Your task to perform on an android device: change the clock display to digital Image 0: 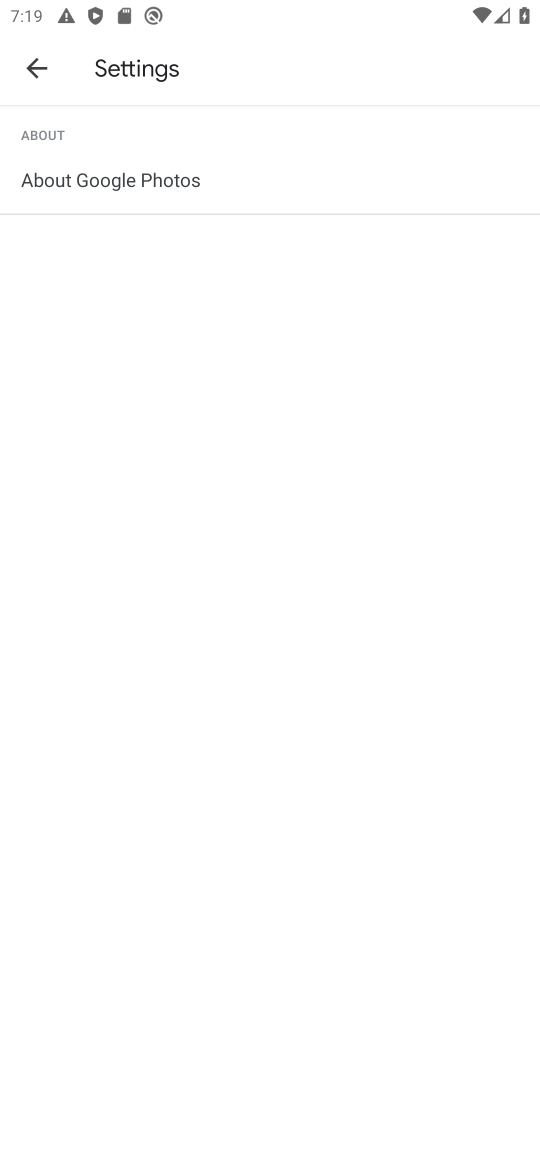
Step 0: press home button
Your task to perform on an android device: change the clock display to digital Image 1: 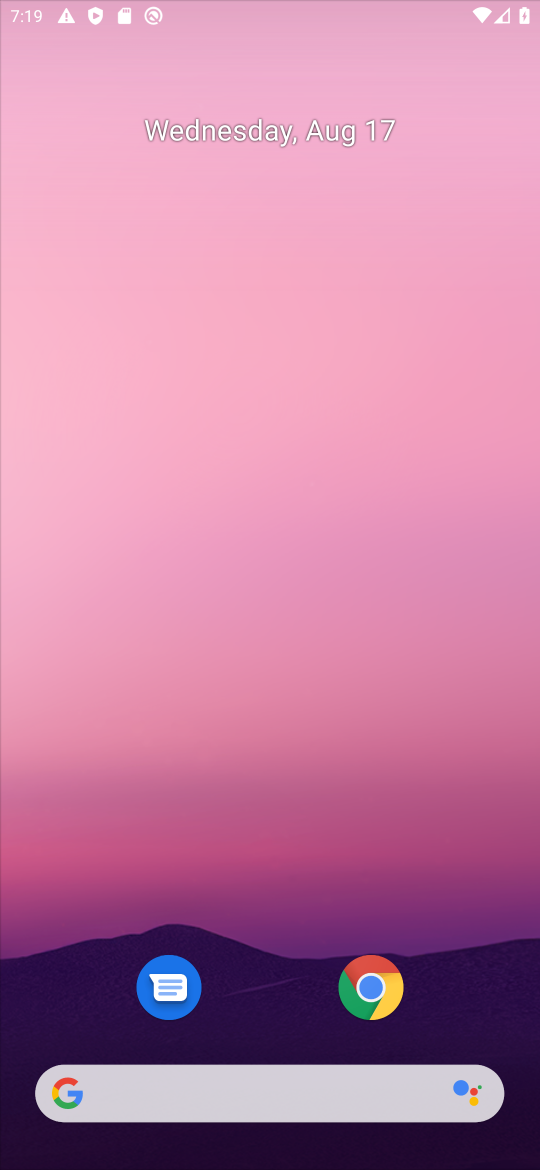
Step 1: drag from (469, 1004) to (232, 9)
Your task to perform on an android device: change the clock display to digital Image 2: 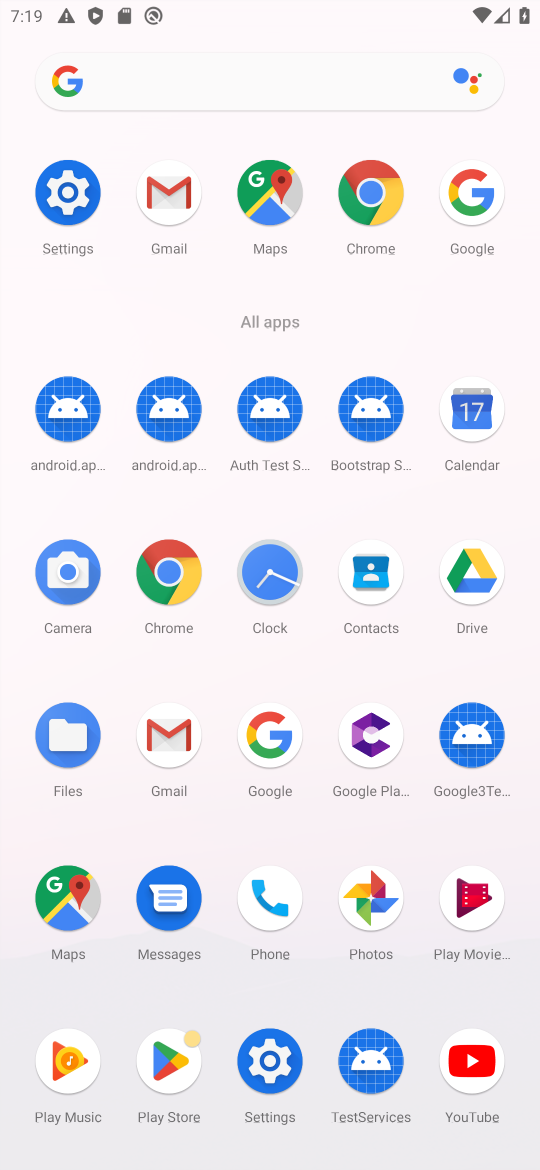
Step 2: click (250, 589)
Your task to perform on an android device: change the clock display to digital Image 3: 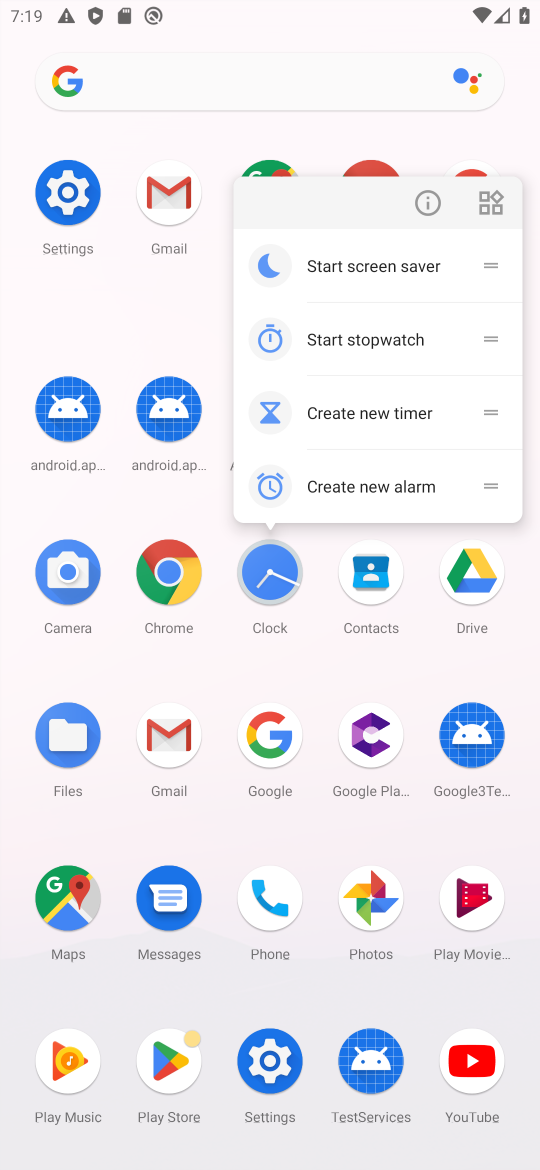
Step 3: click (248, 591)
Your task to perform on an android device: change the clock display to digital Image 4: 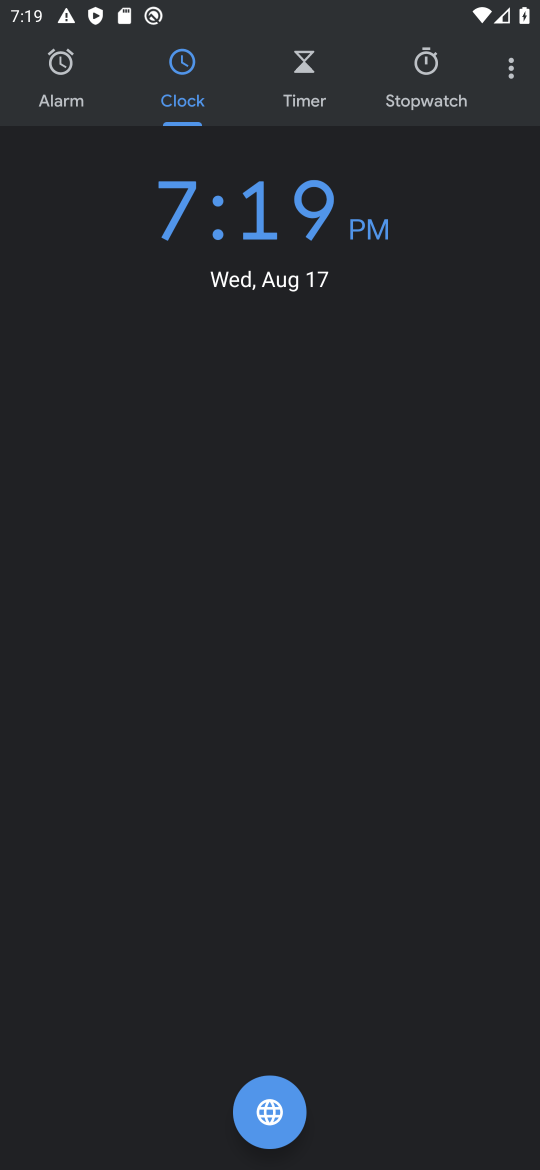
Step 4: click (475, 122)
Your task to perform on an android device: change the clock display to digital Image 5: 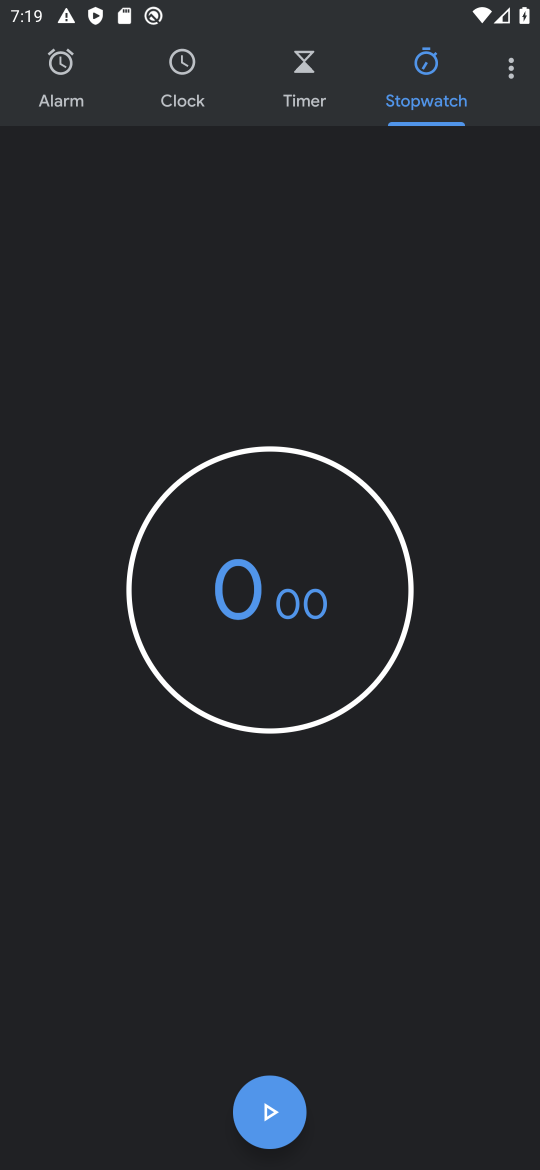
Step 5: click (501, 64)
Your task to perform on an android device: change the clock display to digital Image 6: 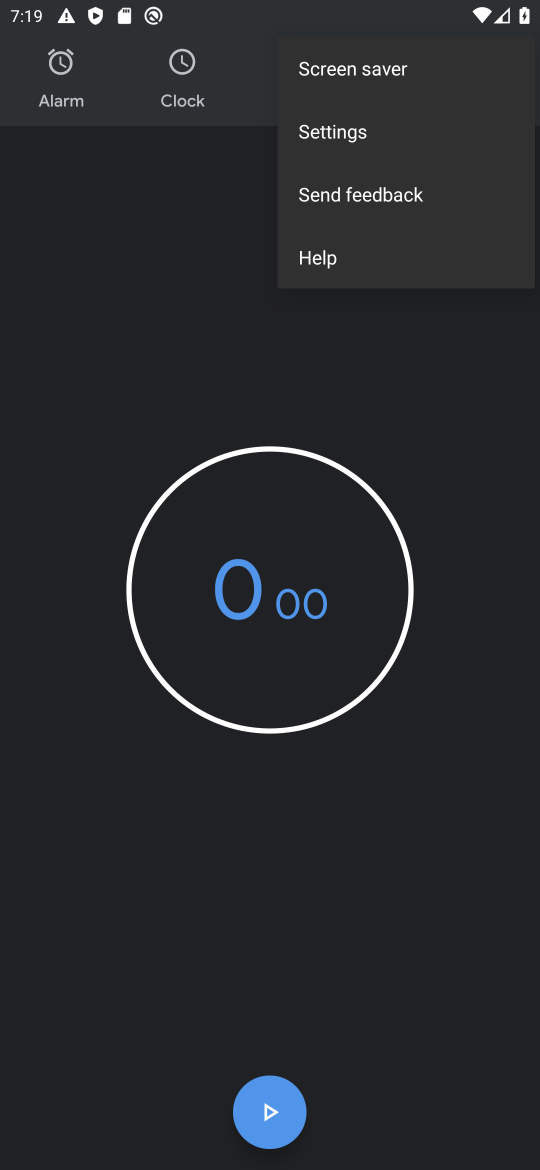
Step 6: click (326, 139)
Your task to perform on an android device: change the clock display to digital Image 7: 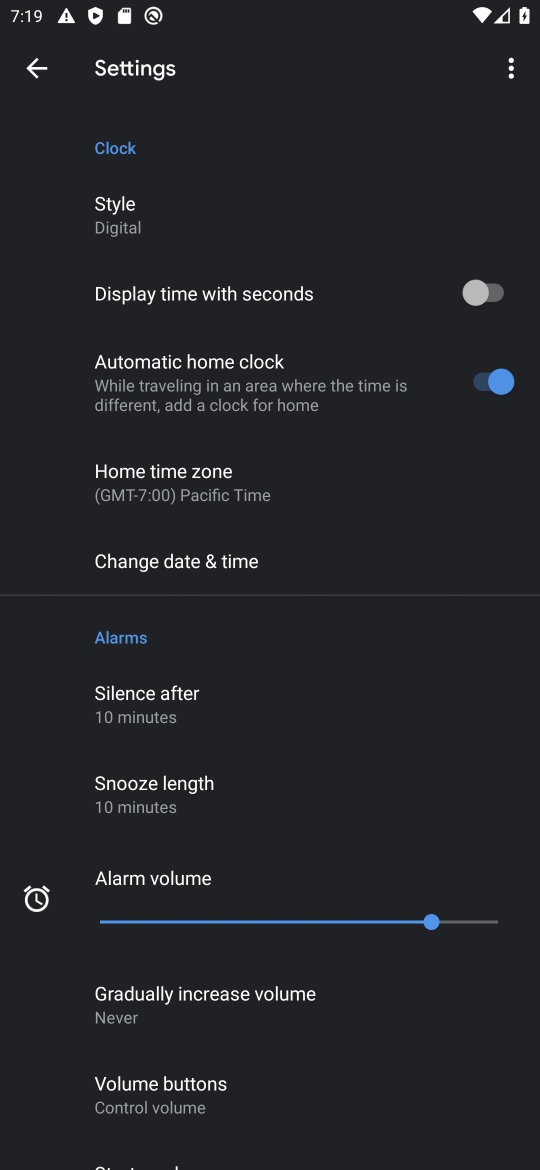
Step 7: click (135, 211)
Your task to perform on an android device: change the clock display to digital Image 8: 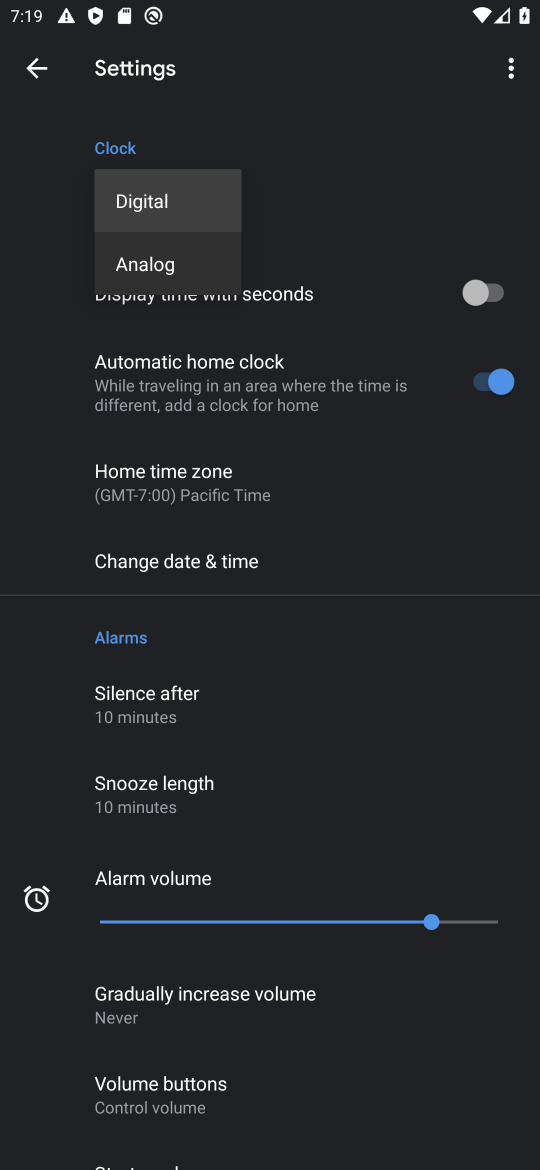
Step 8: click (158, 209)
Your task to perform on an android device: change the clock display to digital Image 9: 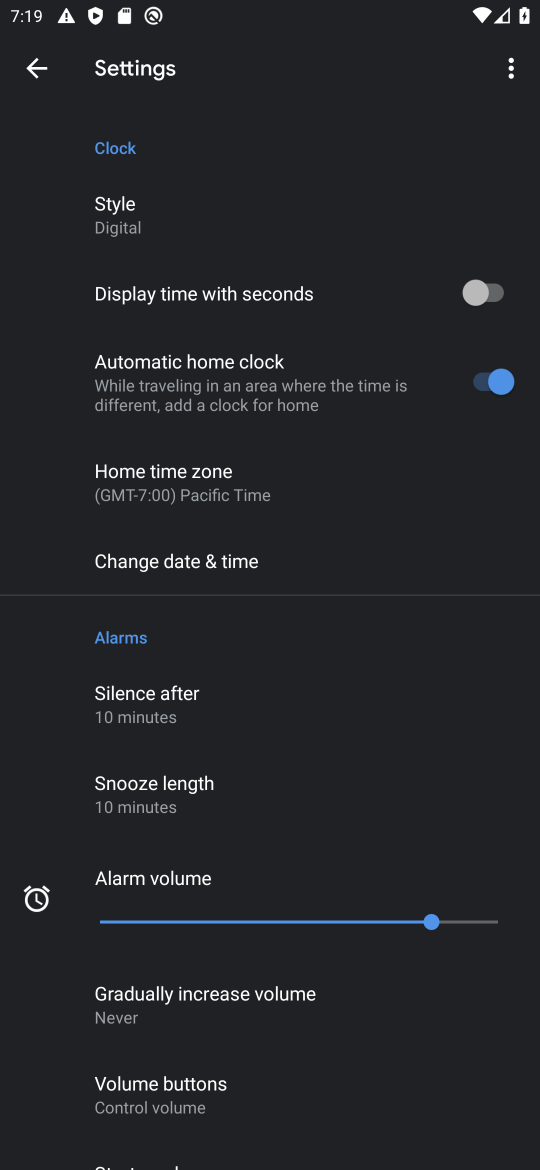
Step 9: task complete